Your task to perform on an android device: turn notification dots off Image 0: 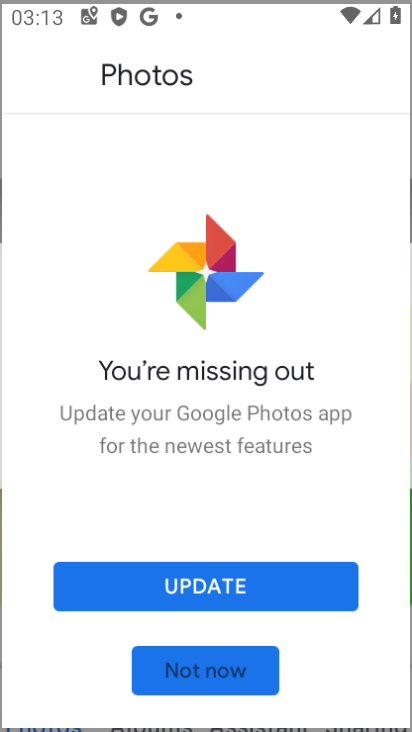
Step 0: press home button
Your task to perform on an android device: turn notification dots off Image 1: 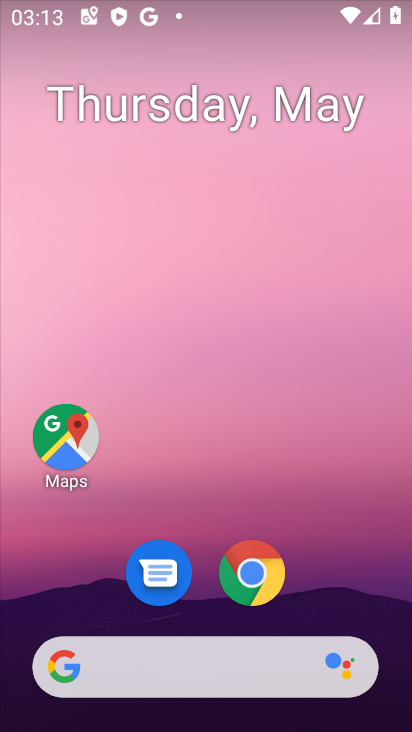
Step 1: drag from (321, 577) to (314, 283)
Your task to perform on an android device: turn notification dots off Image 2: 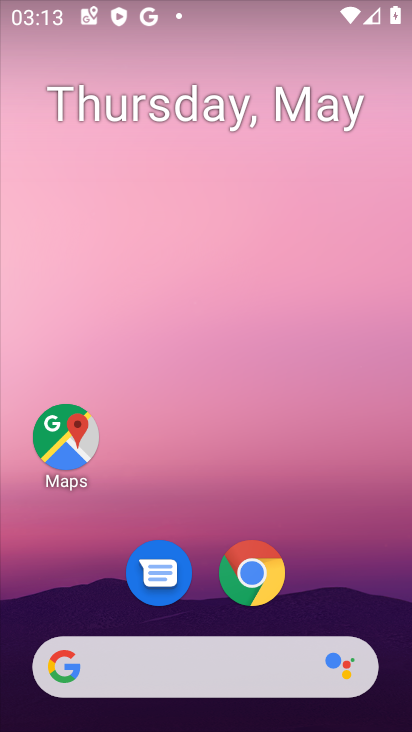
Step 2: drag from (310, 543) to (317, 179)
Your task to perform on an android device: turn notification dots off Image 3: 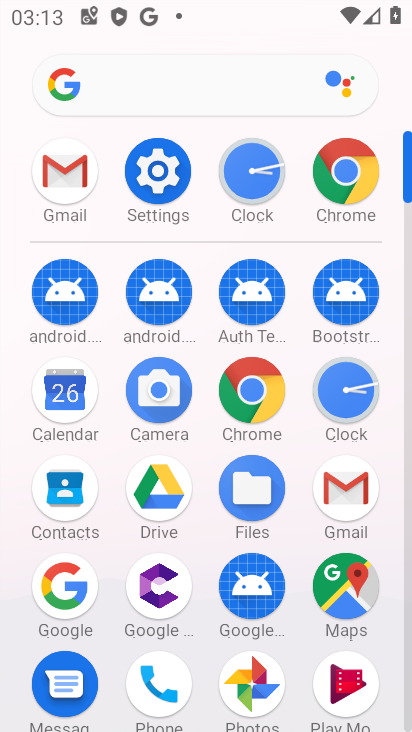
Step 3: click (156, 150)
Your task to perform on an android device: turn notification dots off Image 4: 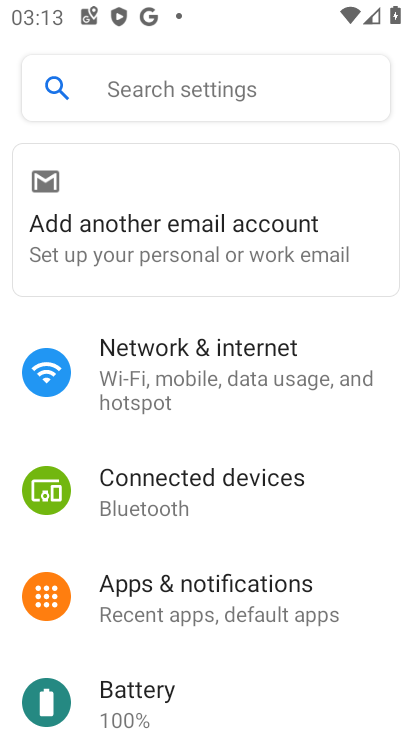
Step 4: click (179, 79)
Your task to perform on an android device: turn notification dots off Image 5: 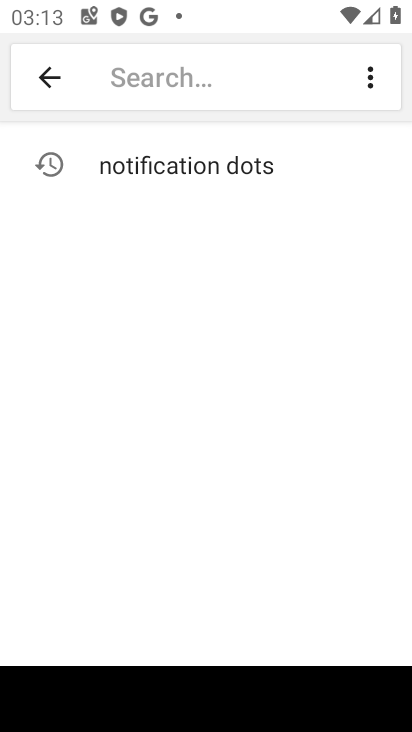
Step 5: click (188, 150)
Your task to perform on an android device: turn notification dots off Image 6: 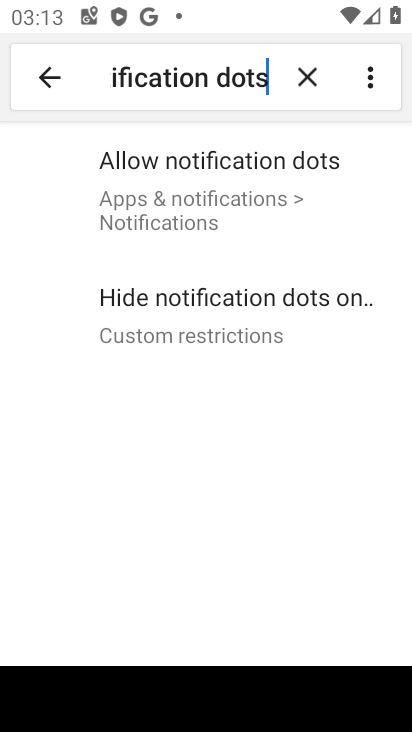
Step 6: click (311, 174)
Your task to perform on an android device: turn notification dots off Image 7: 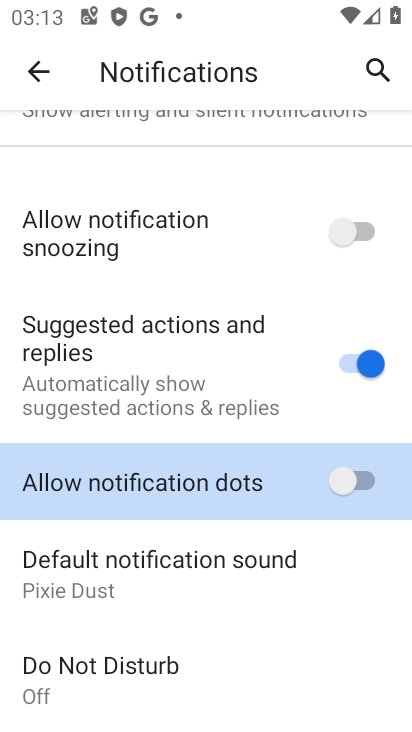
Step 7: task complete